Your task to perform on an android device: Show me the alarms in the clock app Image 0: 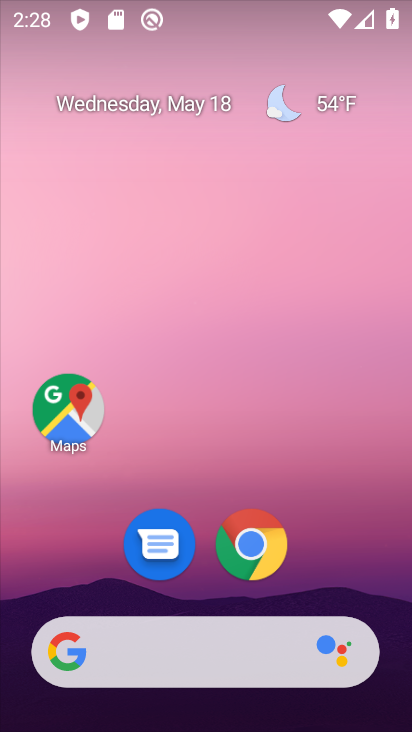
Step 0: drag from (76, 600) to (238, 172)
Your task to perform on an android device: Show me the alarms in the clock app Image 1: 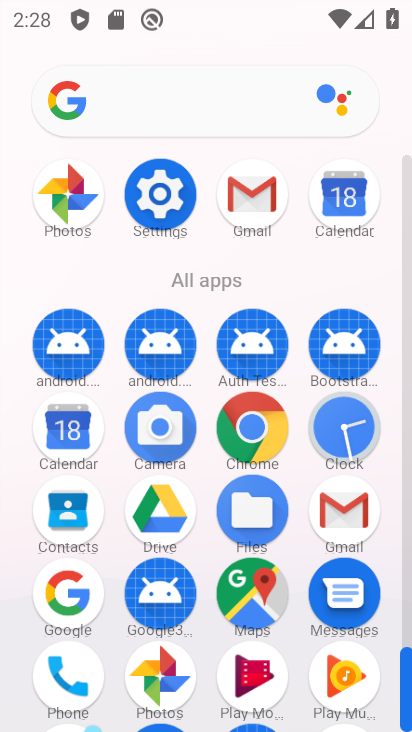
Step 1: click (336, 445)
Your task to perform on an android device: Show me the alarms in the clock app Image 2: 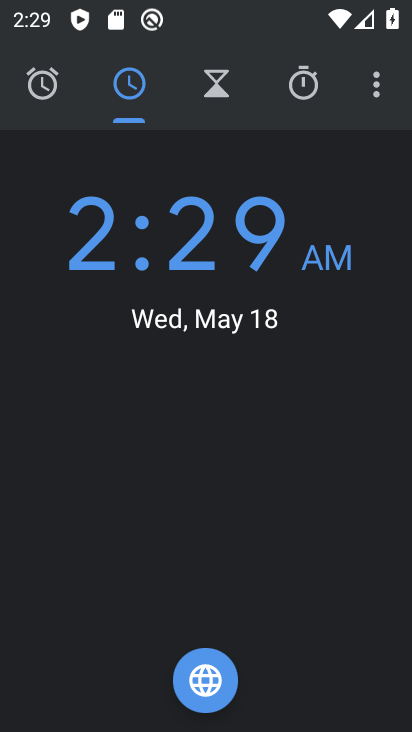
Step 2: click (40, 97)
Your task to perform on an android device: Show me the alarms in the clock app Image 3: 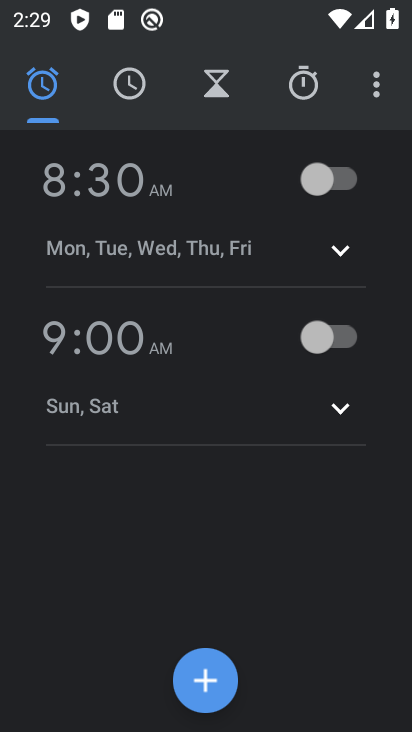
Step 3: task complete